Your task to perform on an android device: check google app version Image 0: 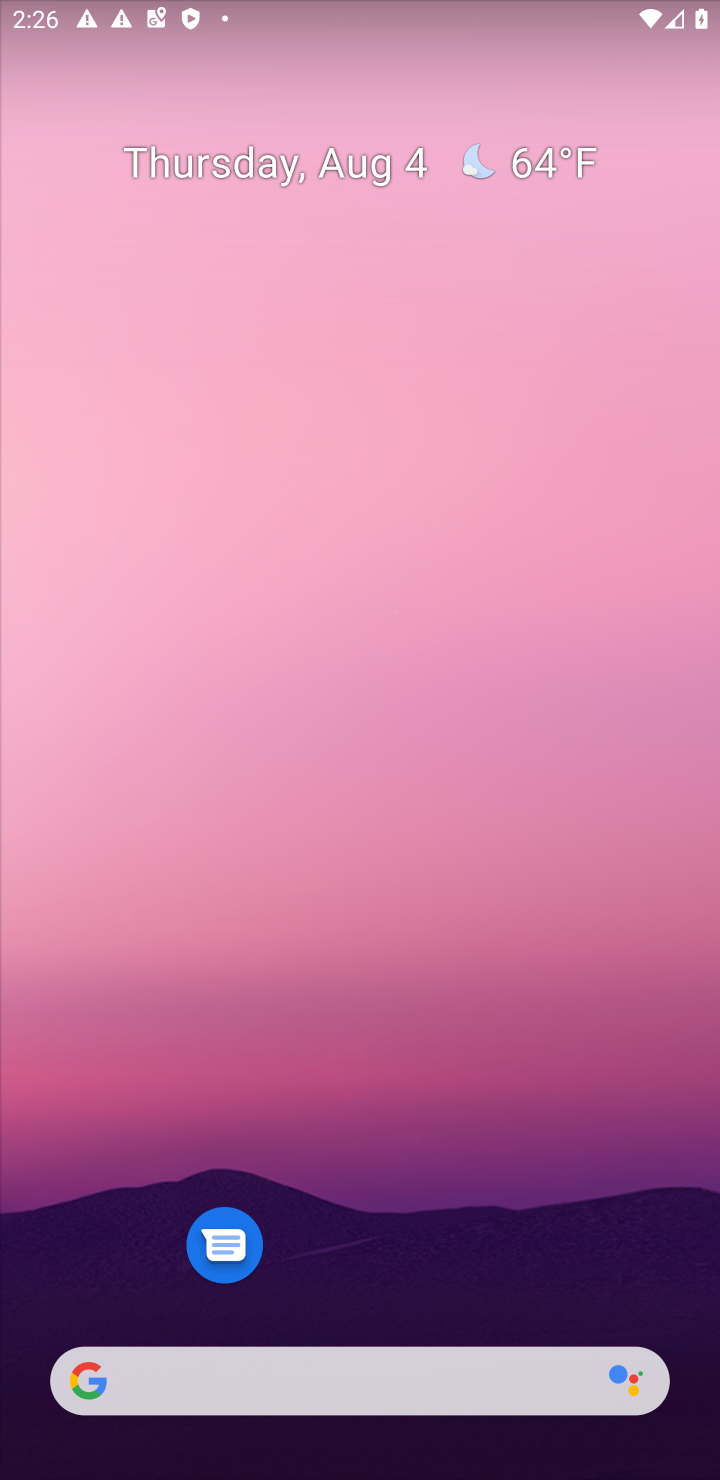
Step 0: drag from (534, 681) to (511, 447)
Your task to perform on an android device: check google app version Image 1: 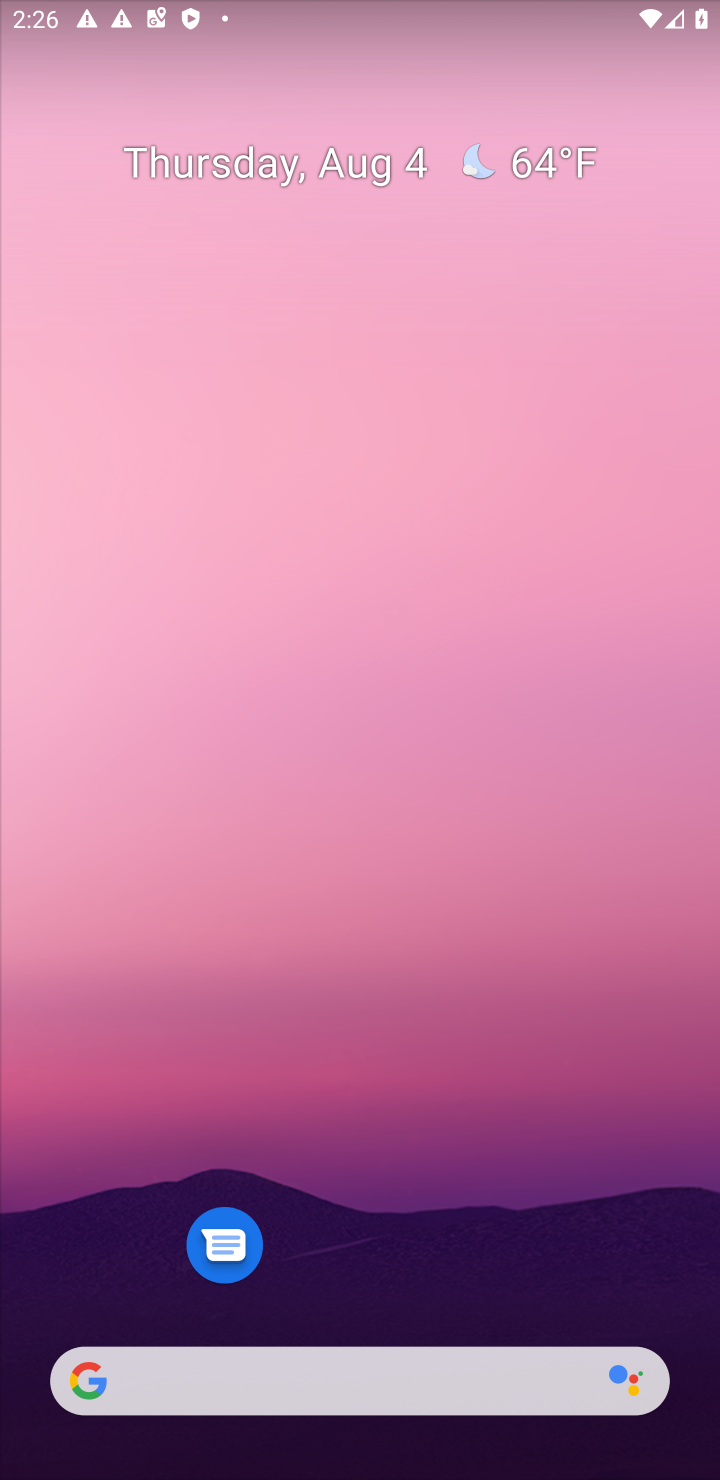
Step 1: drag from (397, 915) to (424, 340)
Your task to perform on an android device: check google app version Image 2: 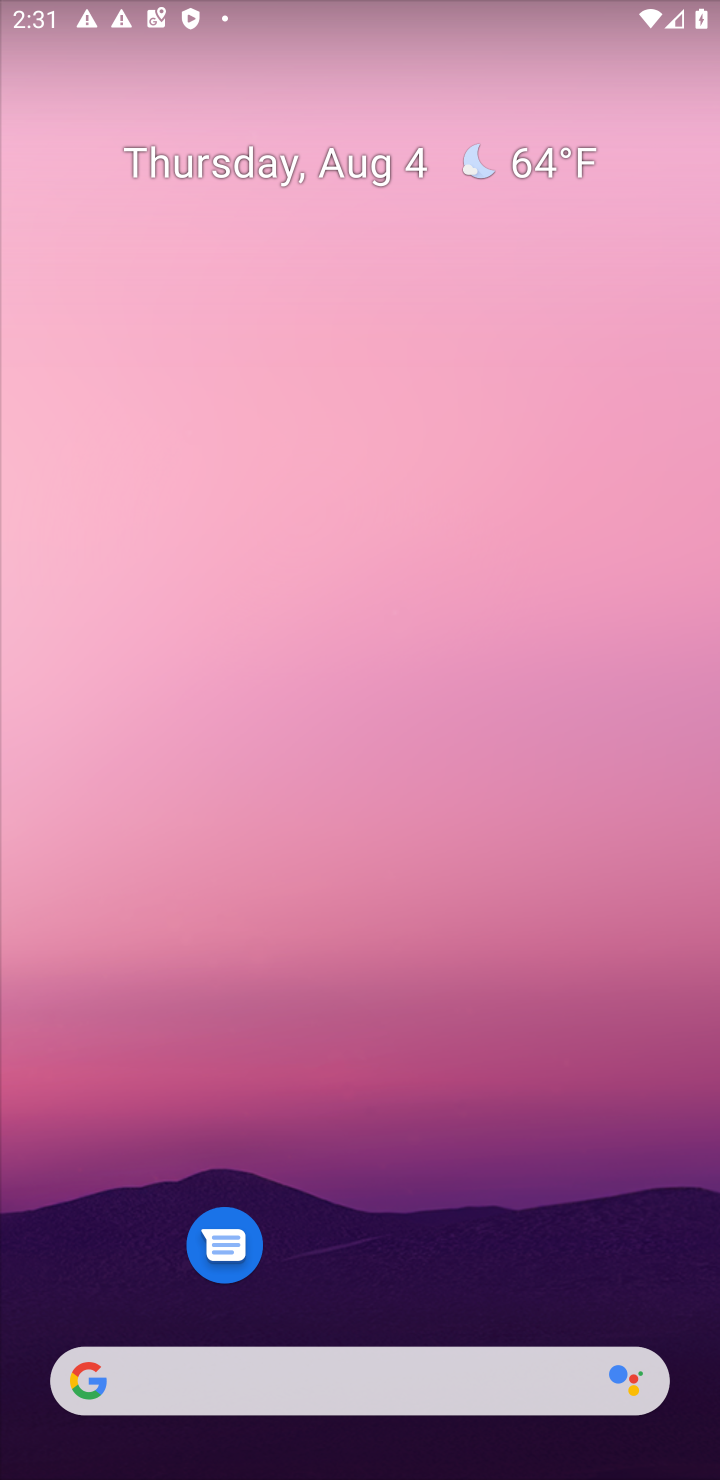
Step 2: click (563, 519)
Your task to perform on an android device: check google app version Image 3: 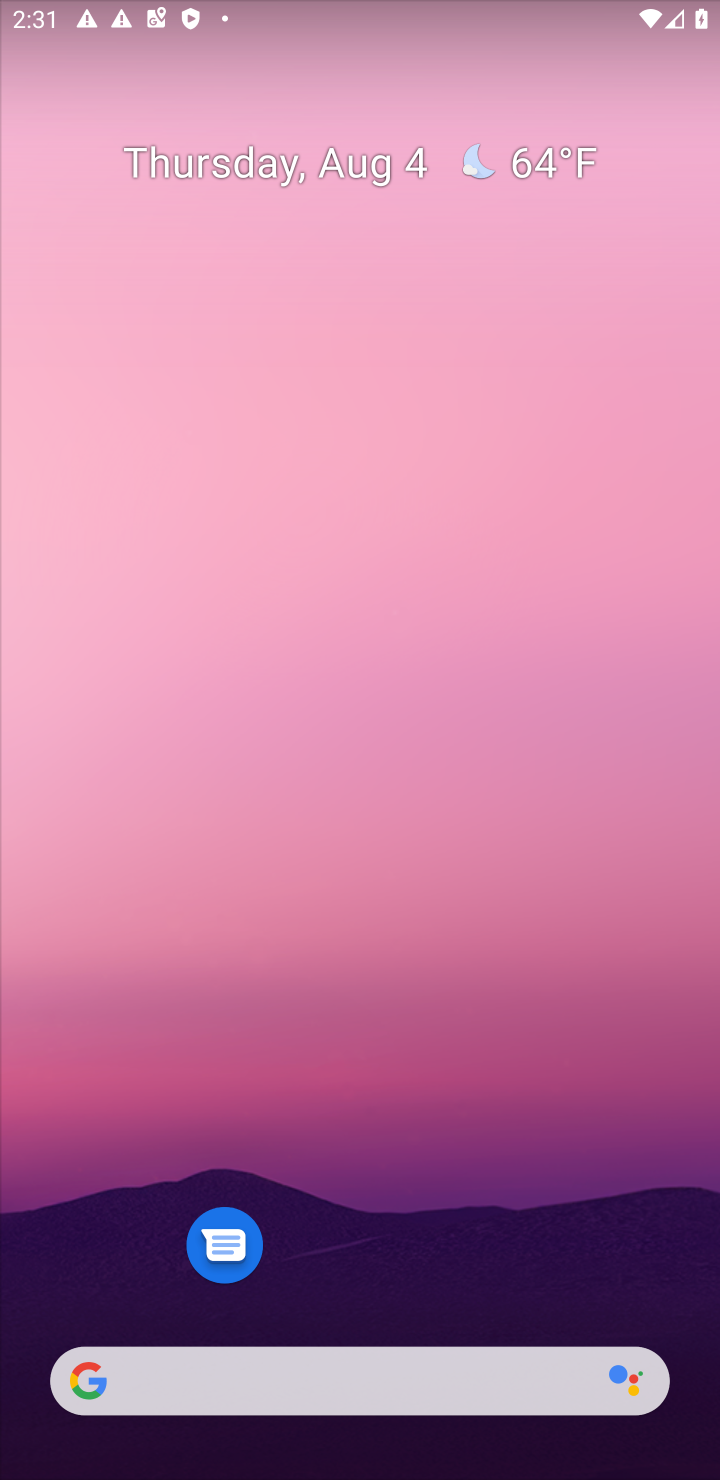
Step 3: drag from (467, 1036) to (511, 531)
Your task to perform on an android device: check google app version Image 4: 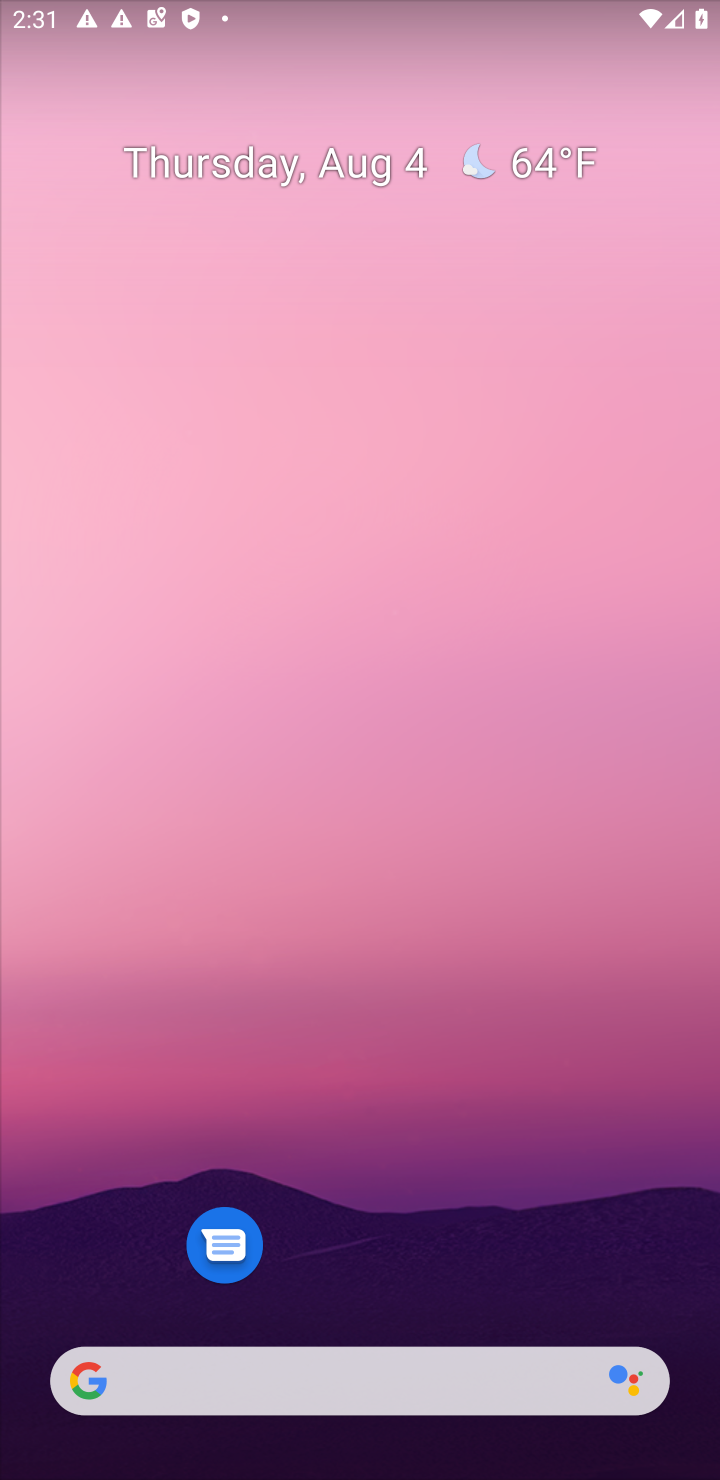
Step 4: drag from (431, 1329) to (609, 446)
Your task to perform on an android device: check google app version Image 5: 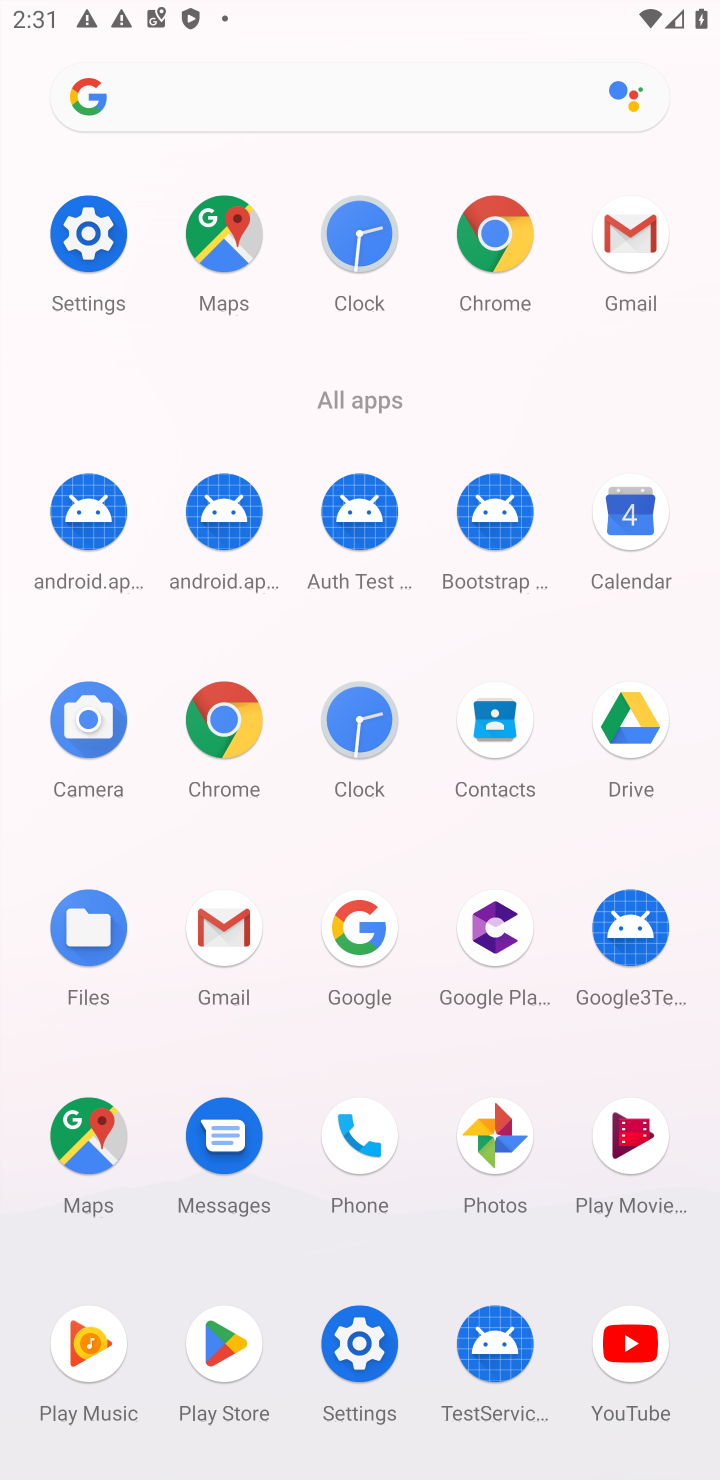
Step 5: click (506, 1113)
Your task to perform on an android device: check google app version Image 6: 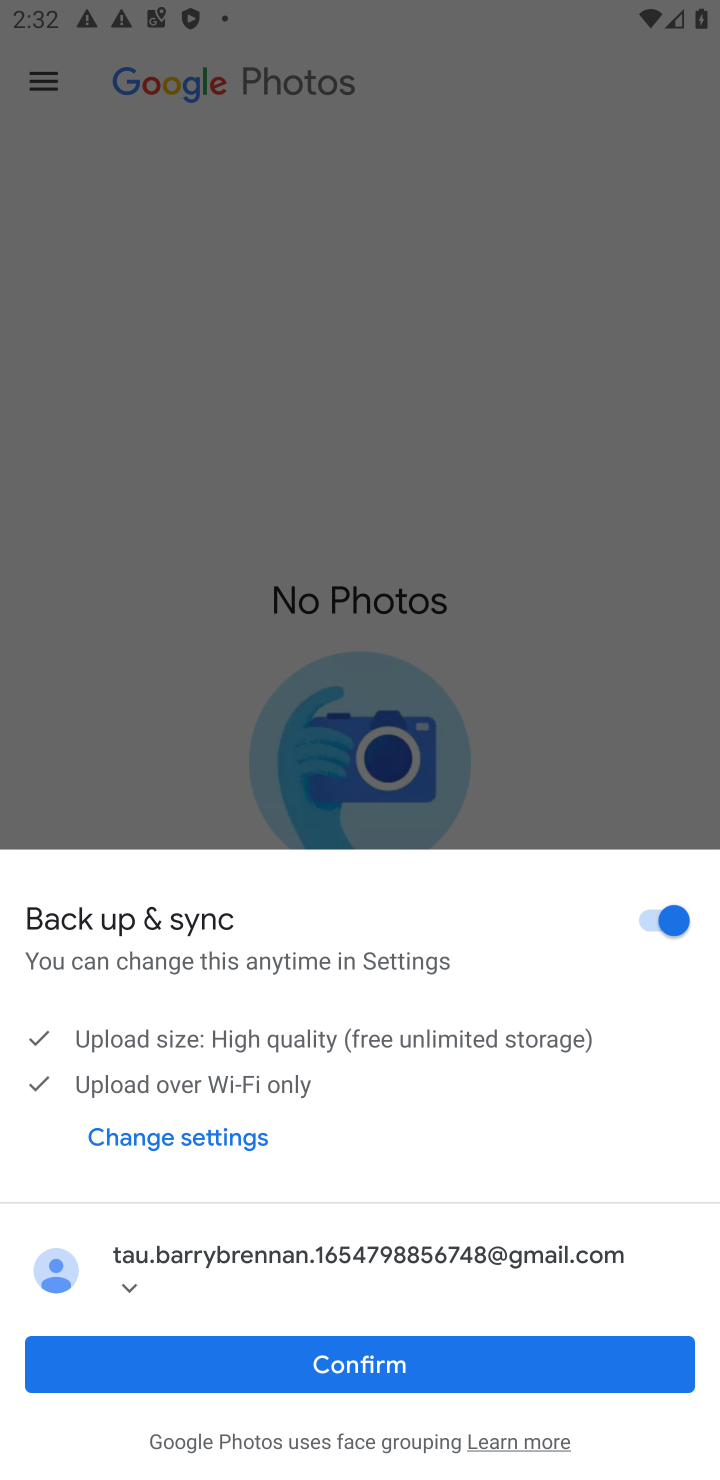
Step 6: click (364, 1342)
Your task to perform on an android device: check google app version Image 7: 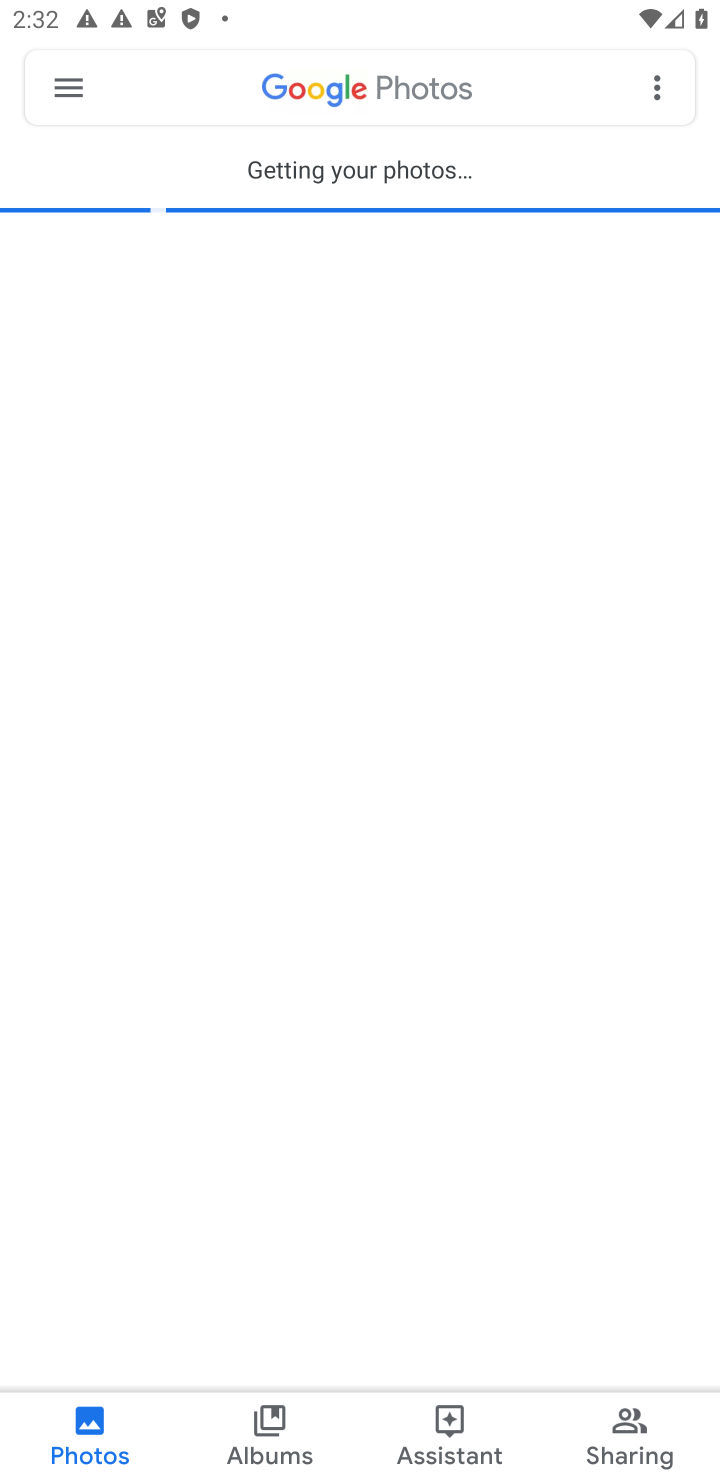
Step 7: task complete